Your task to perform on an android device: Open ESPN.com Image 0: 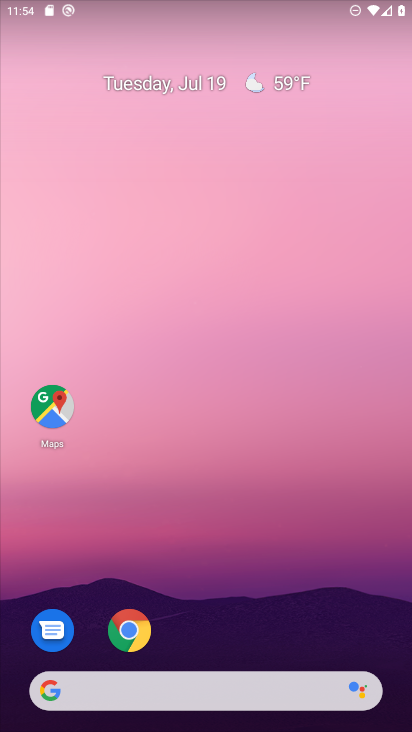
Step 0: click (273, 4)
Your task to perform on an android device: Open ESPN.com Image 1: 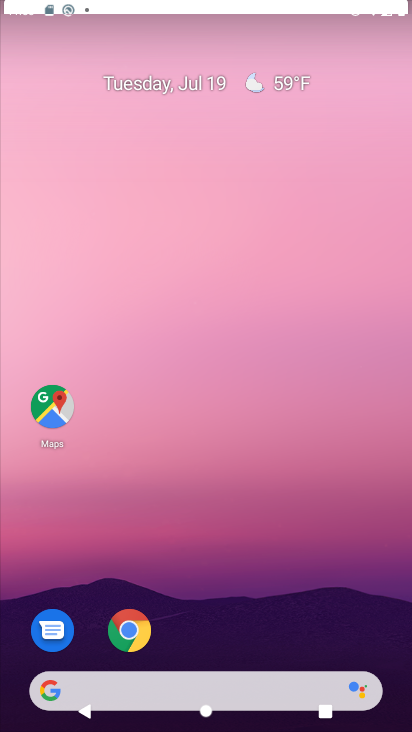
Step 1: drag from (211, 695) to (184, 0)
Your task to perform on an android device: Open ESPN.com Image 2: 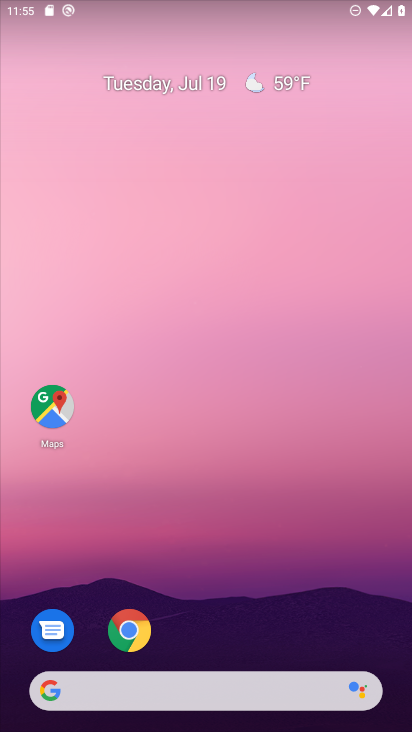
Step 2: drag from (215, 690) to (214, 6)
Your task to perform on an android device: Open ESPN.com Image 3: 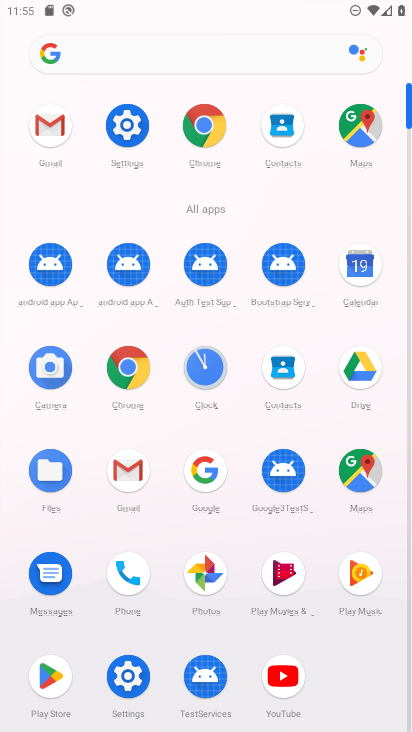
Step 3: click (141, 358)
Your task to perform on an android device: Open ESPN.com Image 4: 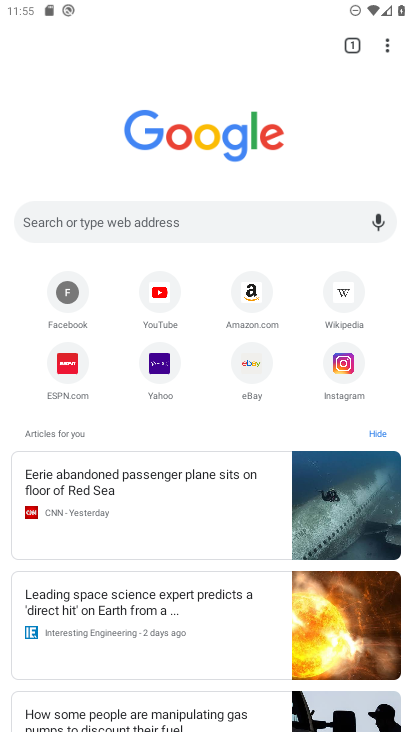
Step 4: click (82, 368)
Your task to perform on an android device: Open ESPN.com Image 5: 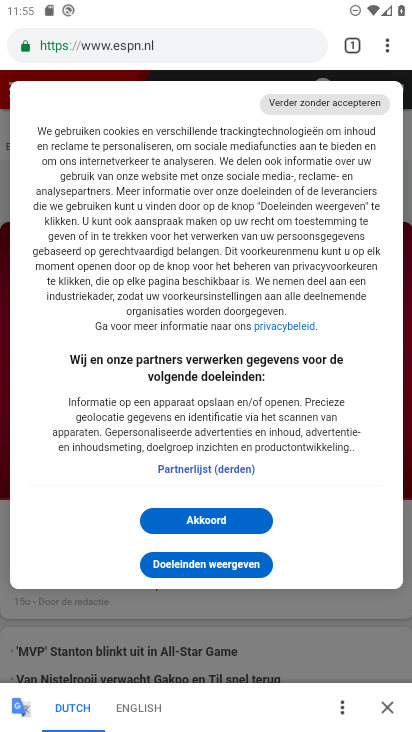
Step 5: task complete